Your task to perform on an android device: empty trash in the gmail app Image 0: 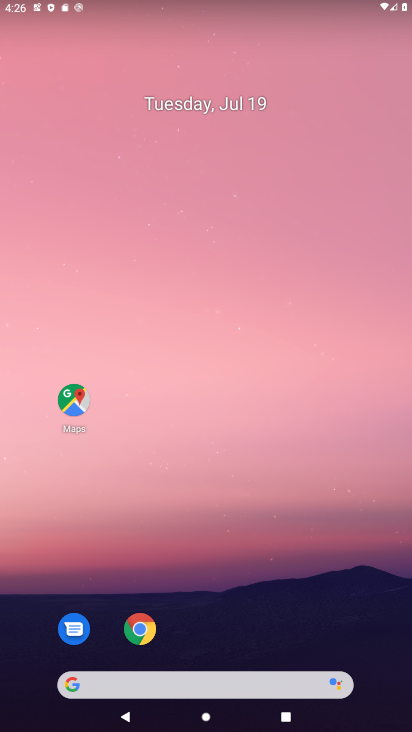
Step 0: drag from (197, 605) to (207, 374)
Your task to perform on an android device: empty trash in the gmail app Image 1: 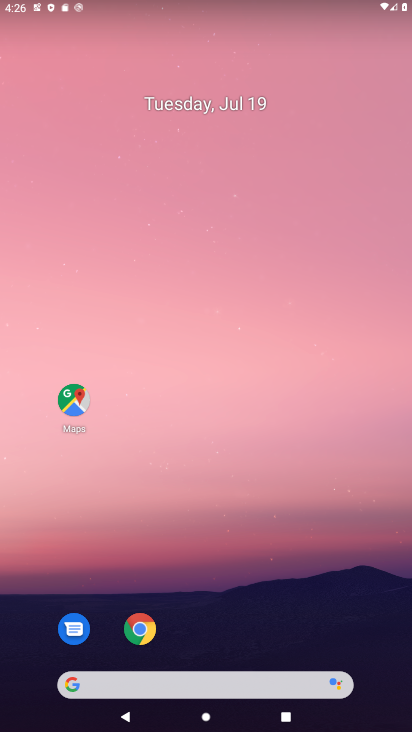
Step 1: drag from (243, 628) to (276, 249)
Your task to perform on an android device: empty trash in the gmail app Image 2: 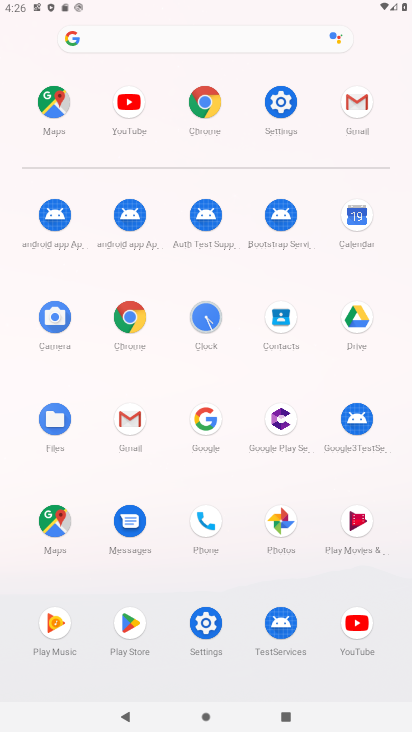
Step 2: click (130, 411)
Your task to perform on an android device: empty trash in the gmail app Image 3: 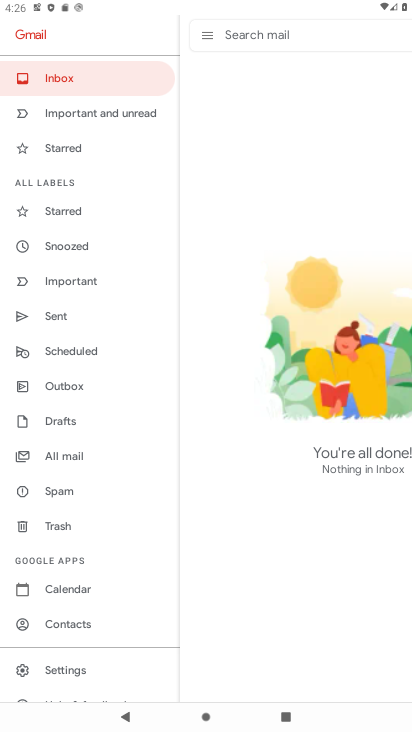
Step 3: click (61, 523)
Your task to perform on an android device: empty trash in the gmail app Image 4: 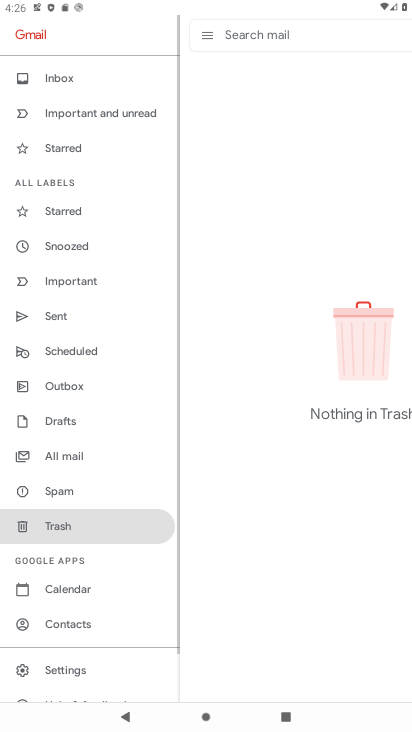
Step 4: task complete